Your task to perform on an android device: check battery use Image 0: 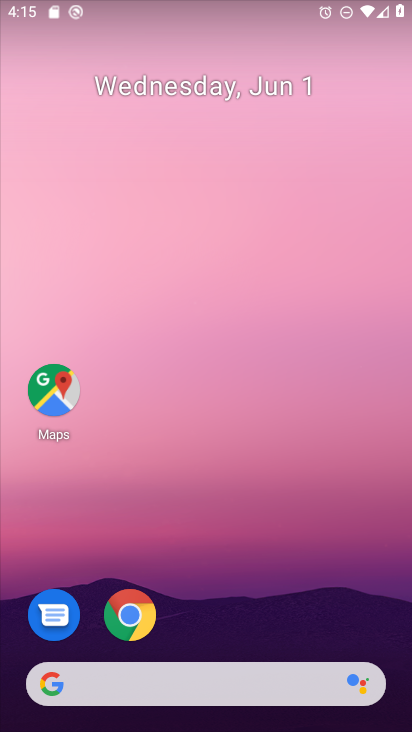
Step 0: drag from (221, 646) to (223, 202)
Your task to perform on an android device: check battery use Image 1: 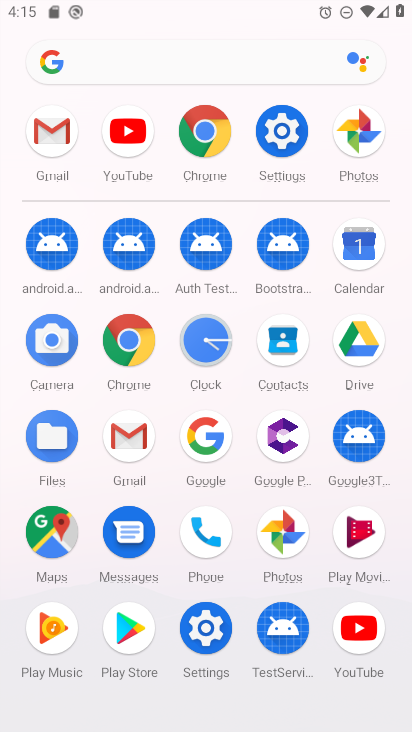
Step 1: click (282, 126)
Your task to perform on an android device: check battery use Image 2: 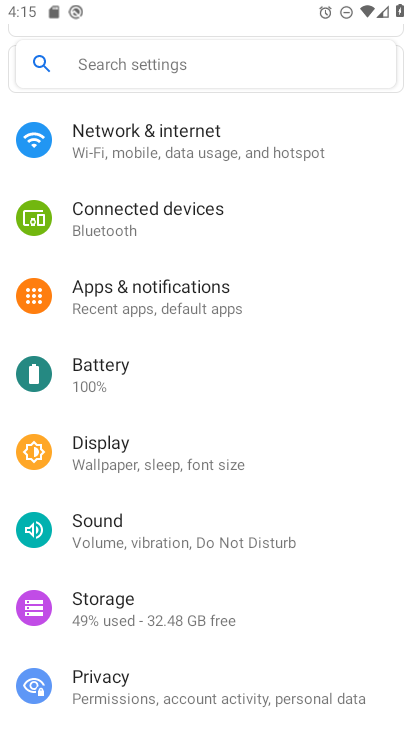
Step 2: click (131, 375)
Your task to perform on an android device: check battery use Image 3: 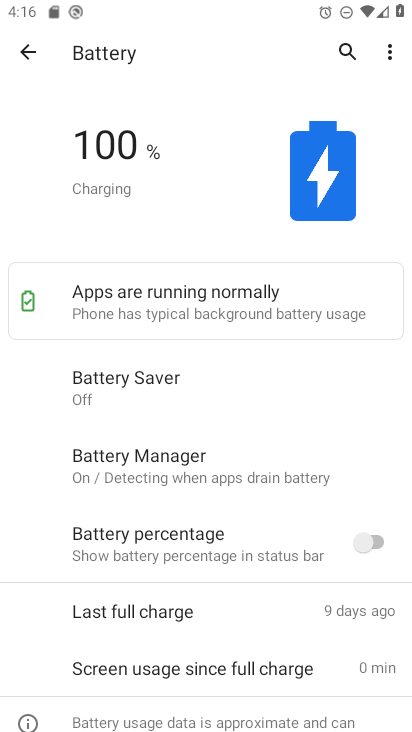
Step 3: click (393, 44)
Your task to perform on an android device: check battery use Image 4: 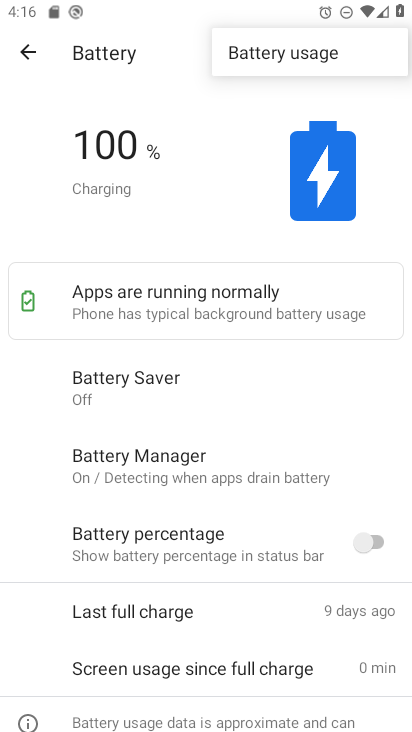
Step 4: click (273, 52)
Your task to perform on an android device: check battery use Image 5: 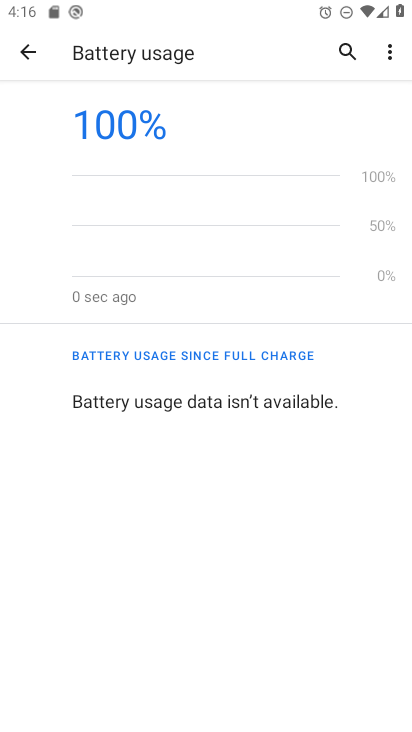
Step 5: task complete